Your task to perform on an android device: Open Android settings Image 0: 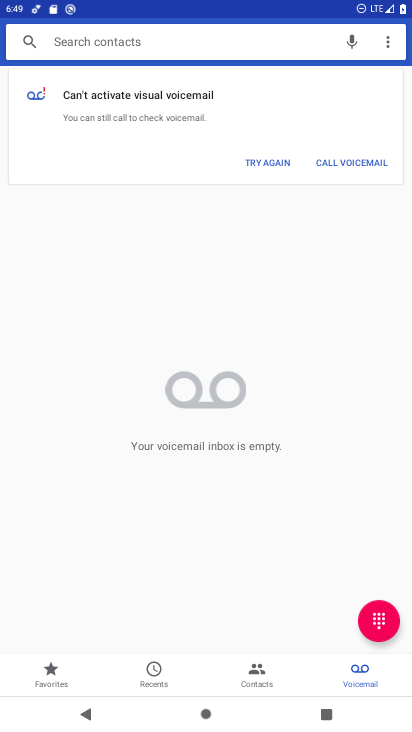
Step 0: press home button
Your task to perform on an android device: Open Android settings Image 1: 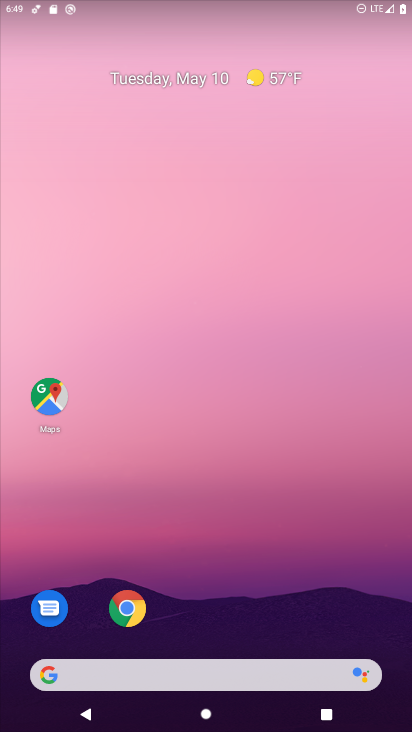
Step 1: drag from (307, 626) to (280, 133)
Your task to perform on an android device: Open Android settings Image 2: 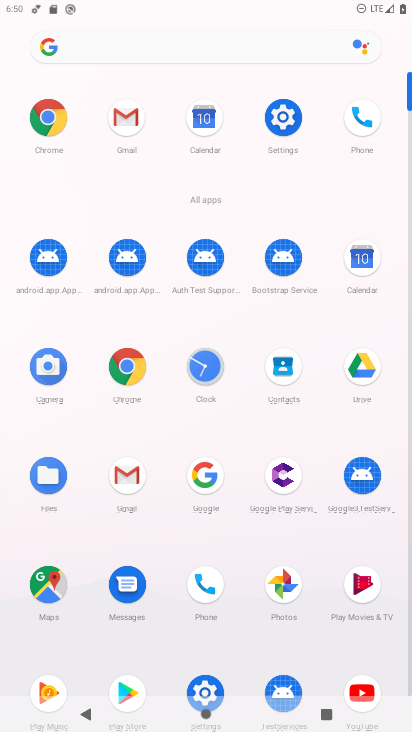
Step 2: click (208, 677)
Your task to perform on an android device: Open Android settings Image 3: 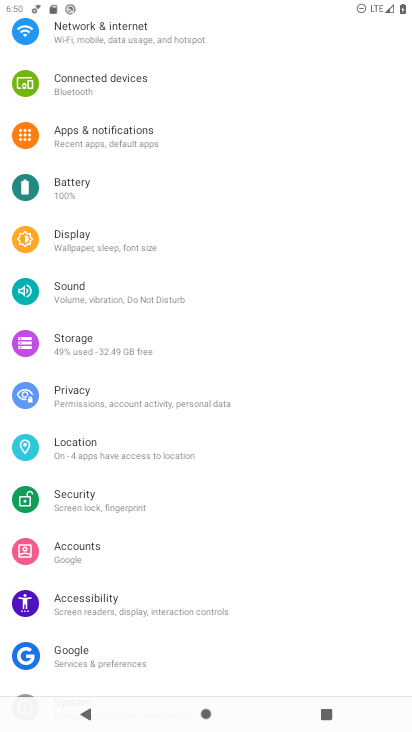
Step 3: drag from (132, 684) to (153, 71)
Your task to perform on an android device: Open Android settings Image 4: 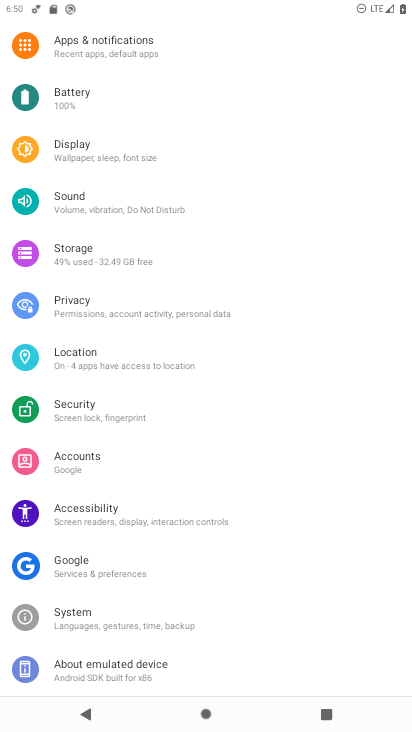
Step 4: click (140, 676)
Your task to perform on an android device: Open Android settings Image 5: 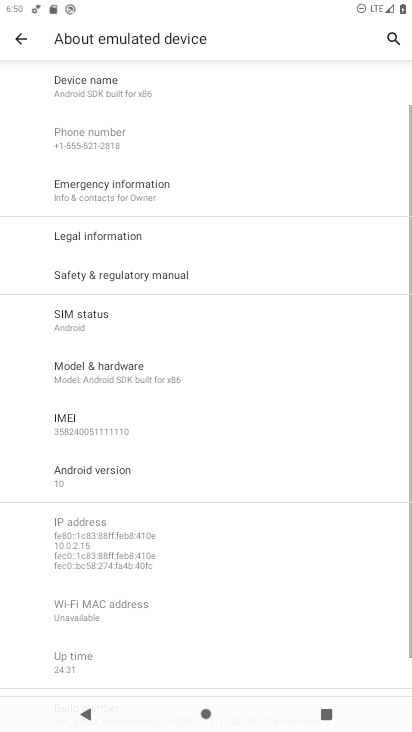
Step 5: click (100, 465)
Your task to perform on an android device: Open Android settings Image 6: 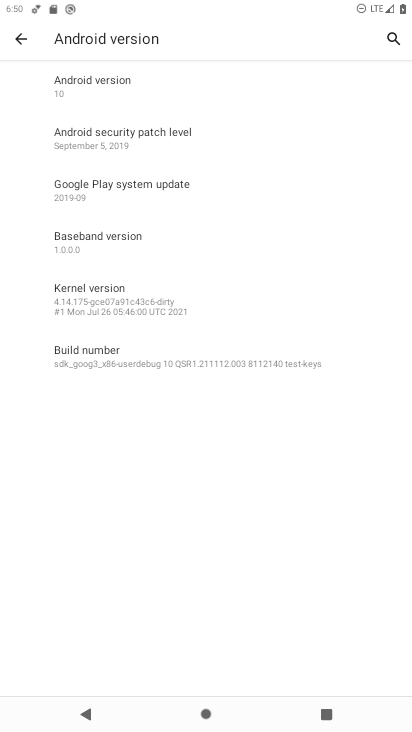
Step 6: task complete